Your task to perform on an android device: turn off notifications in google photos Image 0: 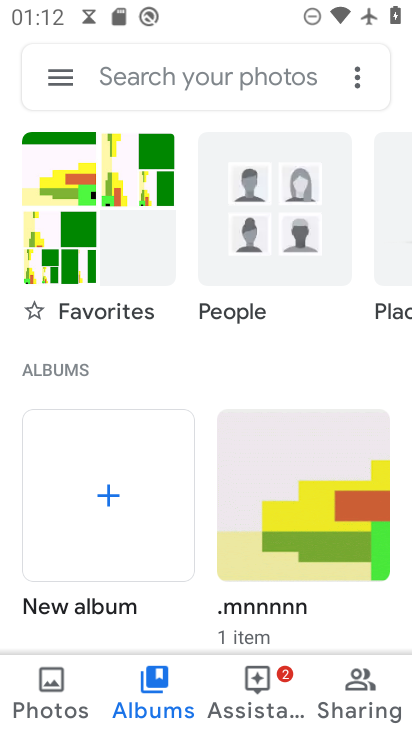
Step 0: click (65, 78)
Your task to perform on an android device: turn off notifications in google photos Image 1: 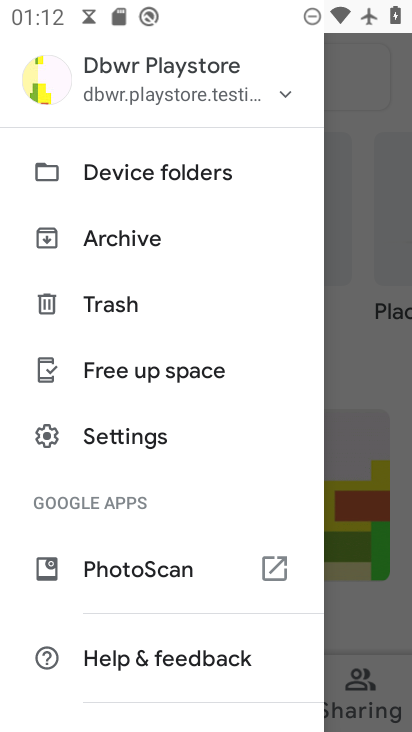
Step 1: click (146, 446)
Your task to perform on an android device: turn off notifications in google photos Image 2: 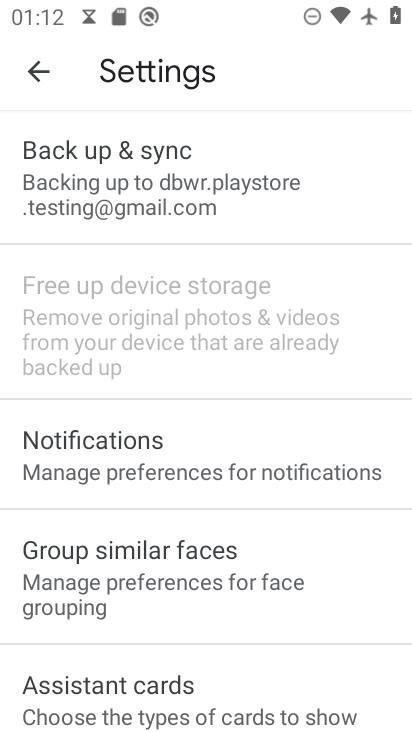
Step 2: click (142, 471)
Your task to perform on an android device: turn off notifications in google photos Image 3: 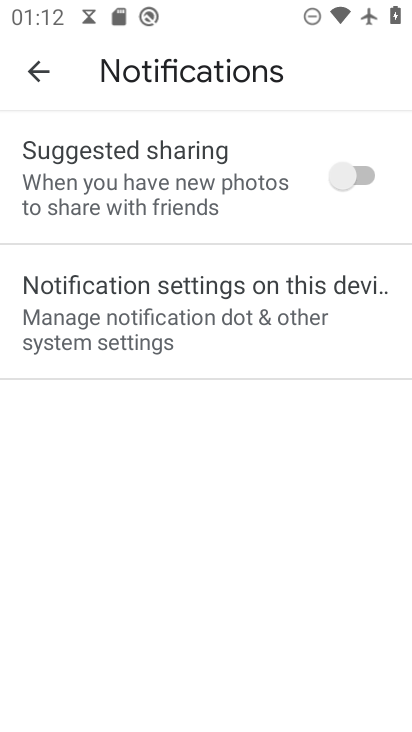
Step 3: click (254, 363)
Your task to perform on an android device: turn off notifications in google photos Image 4: 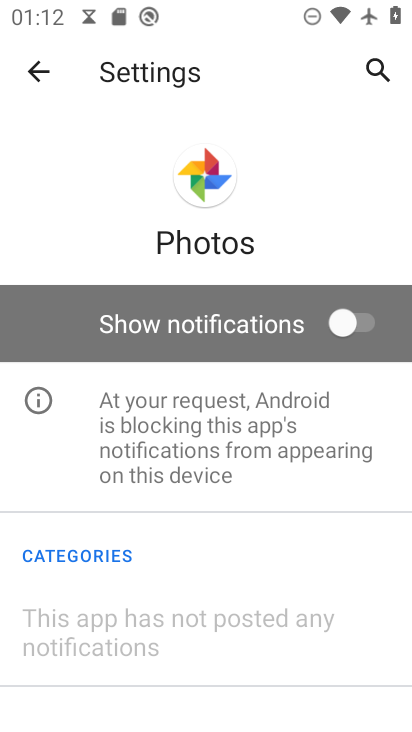
Step 4: task complete